Your task to perform on an android device: Open Reddit.com Image 0: 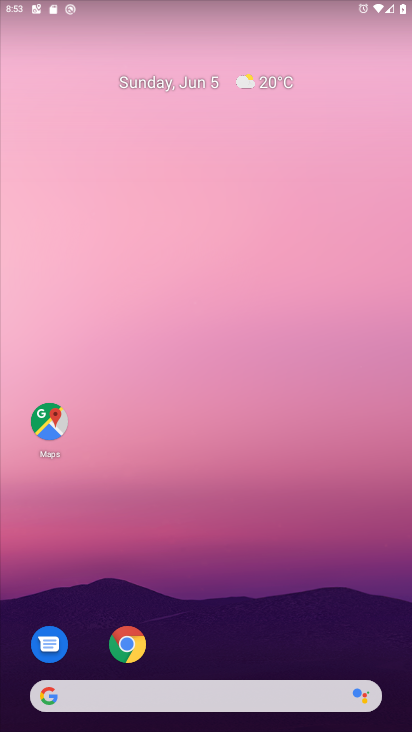
Step 0: drag from (209, 578) to (170, 216)
Your task to perform on an android device: Open Reddit.com Image 1: 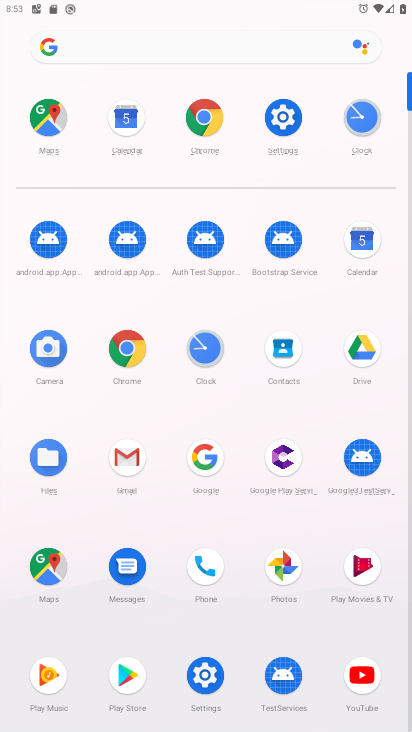
Step 1: click (116, 336)
Your task to perform on an android device: Open Reddit.com Image 2: 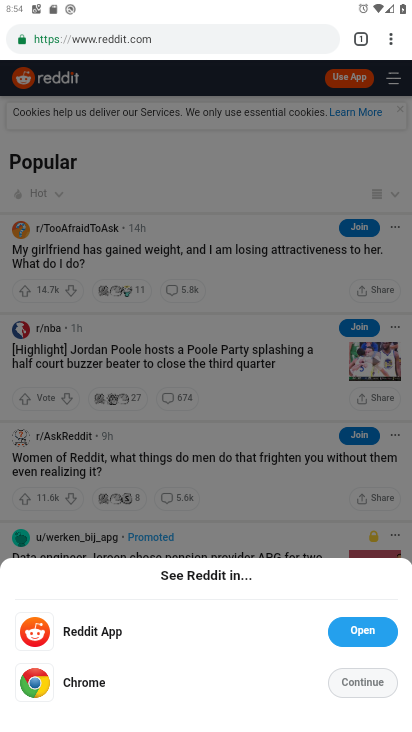
Step 2: task complete